Your task to perform on an android device: change alarm snooze length Image 0: 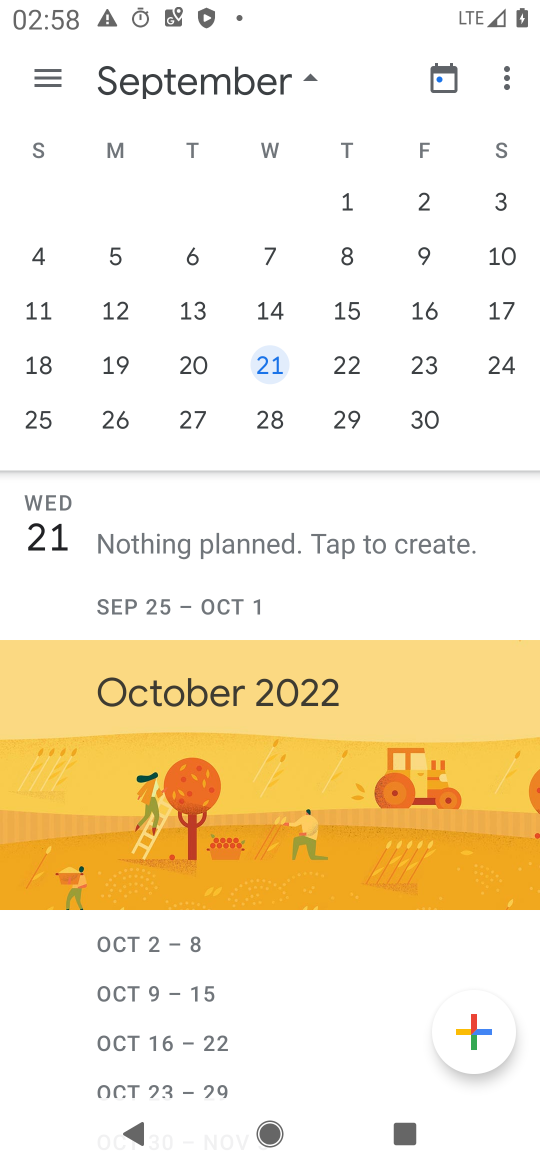
Step 0: press home button
Your task to perform on an android device: change alarm snooze length Image 1: 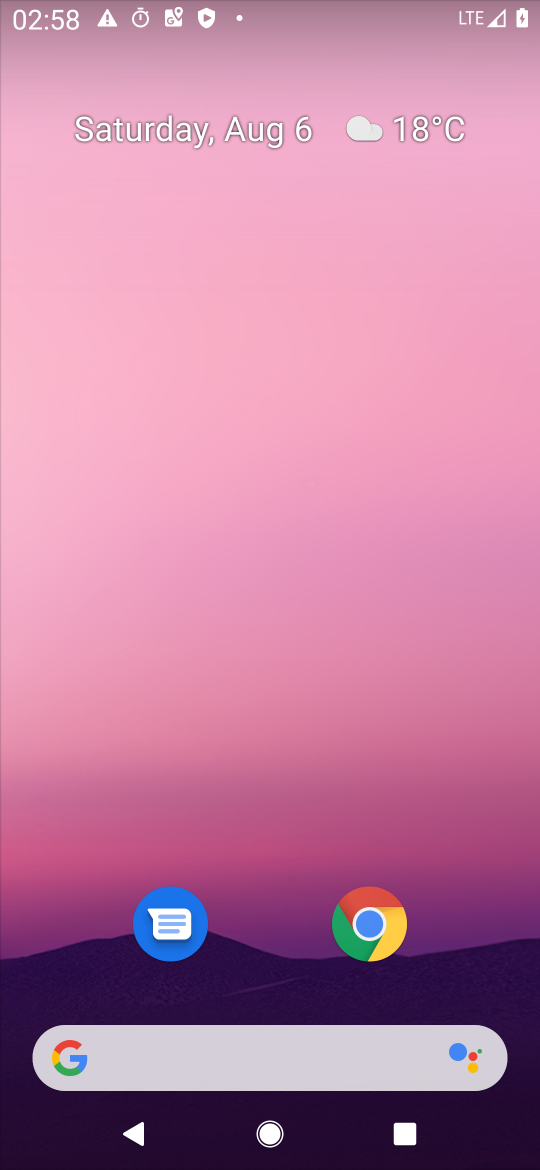
Step 1: drag from (285, 1062) to (375, 30)
Your task to perform on an android device: change alarm snooze length Image 2: 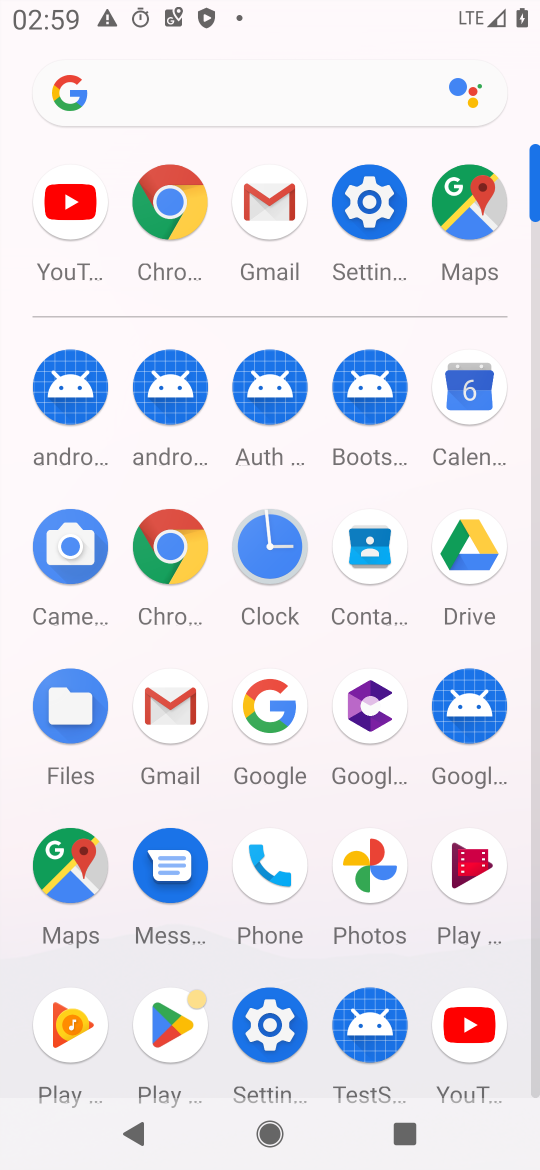
Step 2: click (262, 544)
Your task to perform on an android device: change alarm snooze length Image 3: 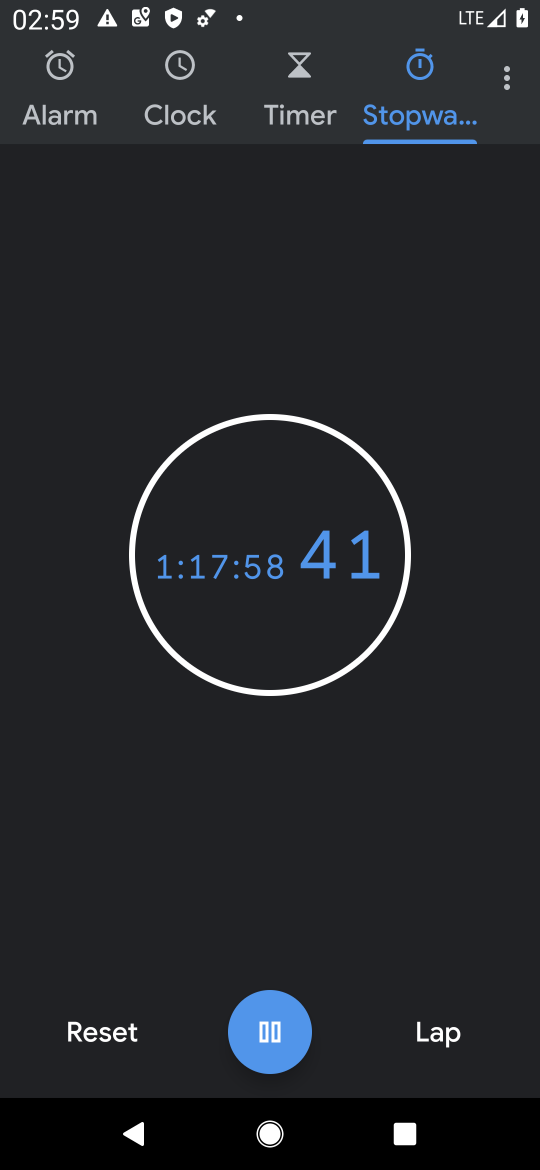
Step 3: click (503, 68)
Your task to perform on an android device: change alarm snooze length Image 4: 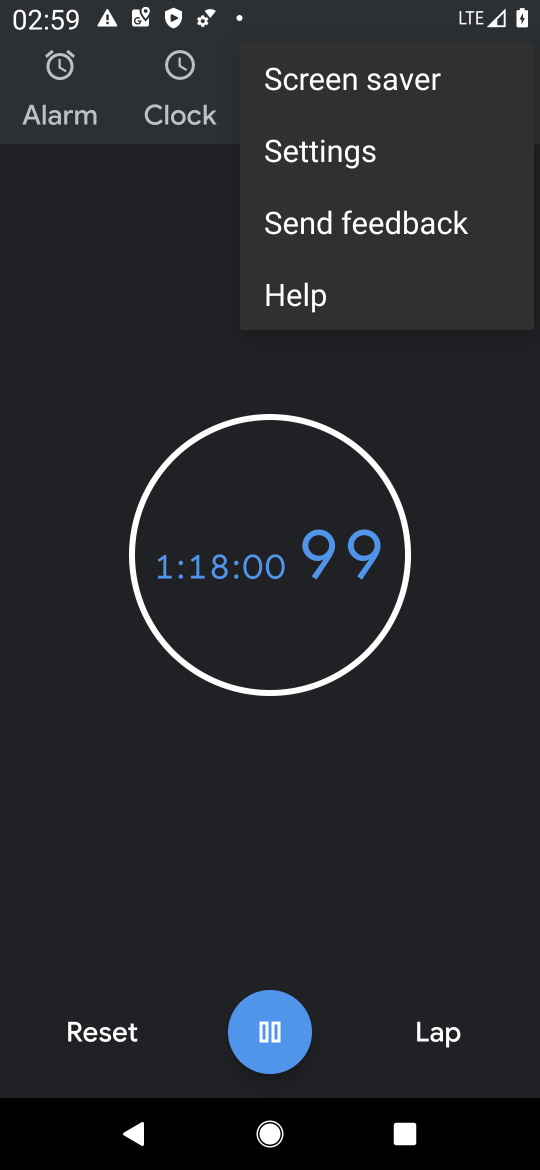
Step 4: click (357, 170)
Your task to perform on an android device: change alarm snooze length Image 5: 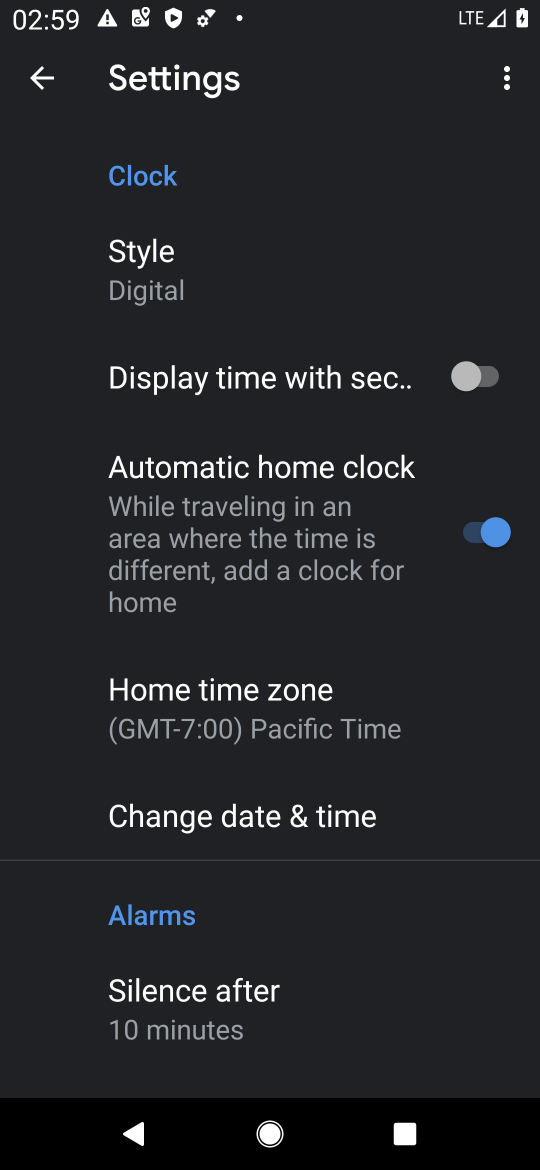
Step 5: drag from (398, 973) to (398, 264)
Your task to perform on an android device: change alarm snooze length Image 6: 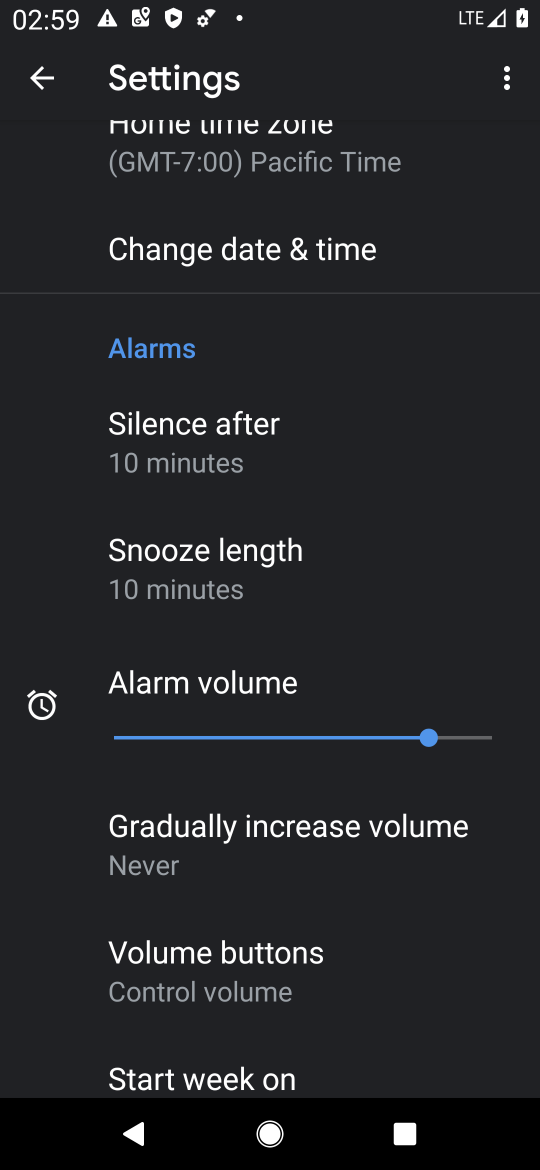
Step 6: drag from (457, 985) to (467, 697)
Your task to perform on an android device: change alarm snooze length Image 7: 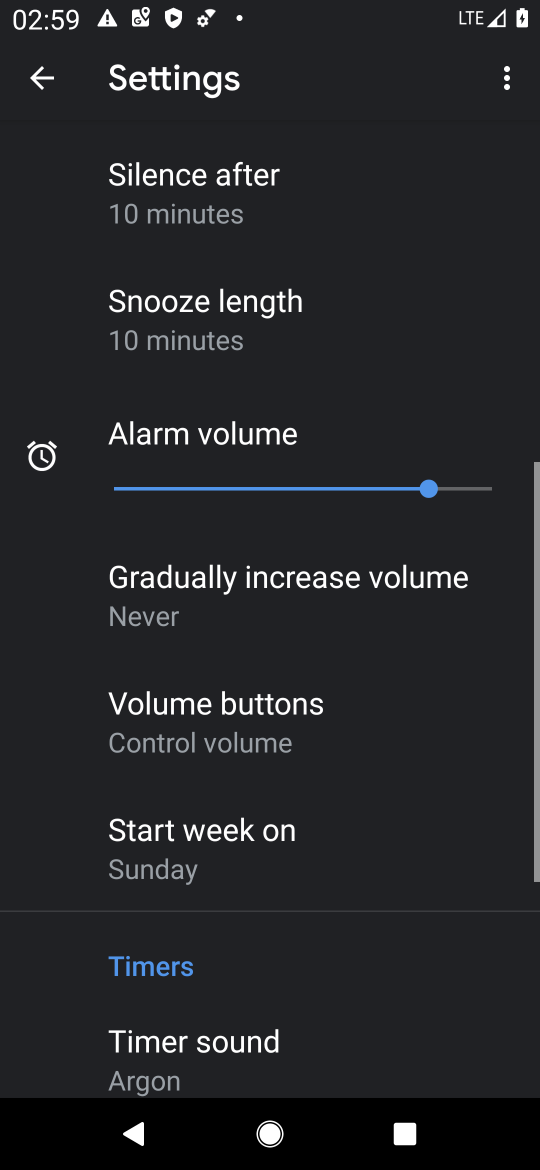
Step 7: click (467, 696)
Your task to perform on an android device: change alarm snooze length Image 8: 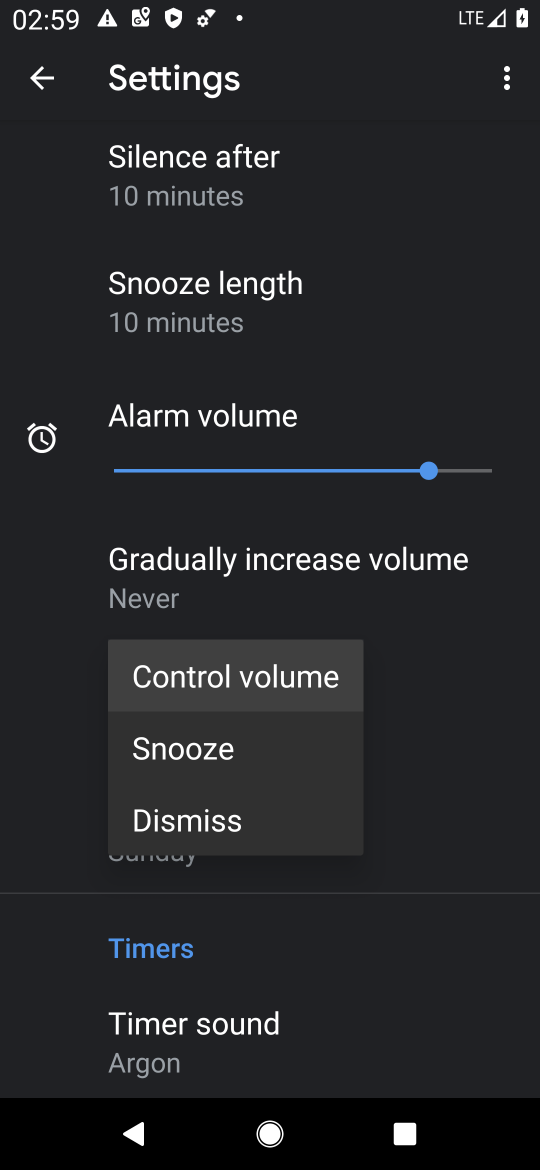
Step 8: click (244, 309)
Your task to perform on an android device: change alarm snooze length Image 9: 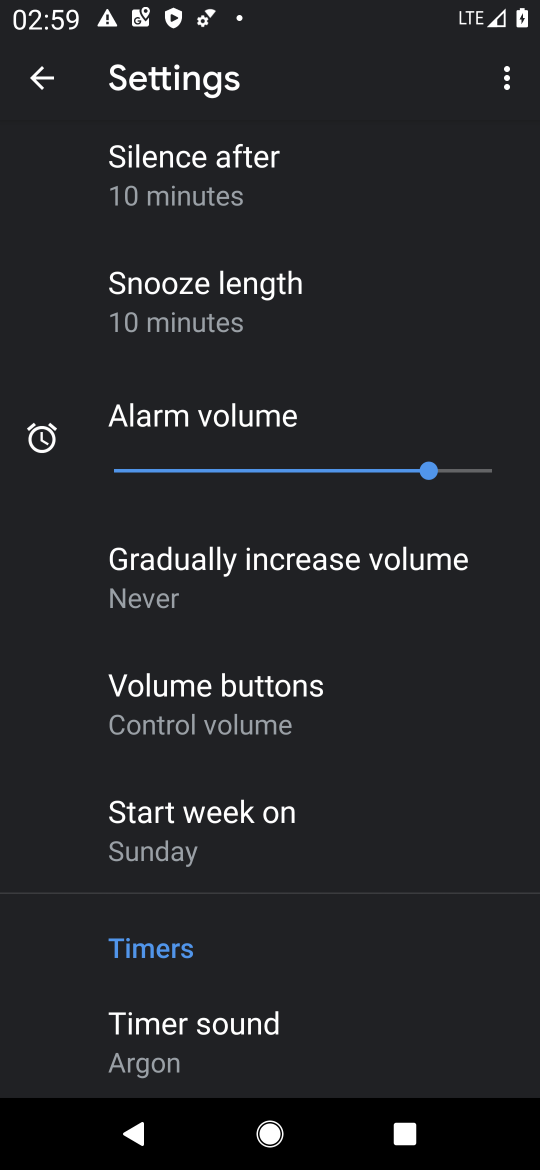
Step 9: click (244, 309)
Your task to perform on an android device: change alarm snooze length Image 10: 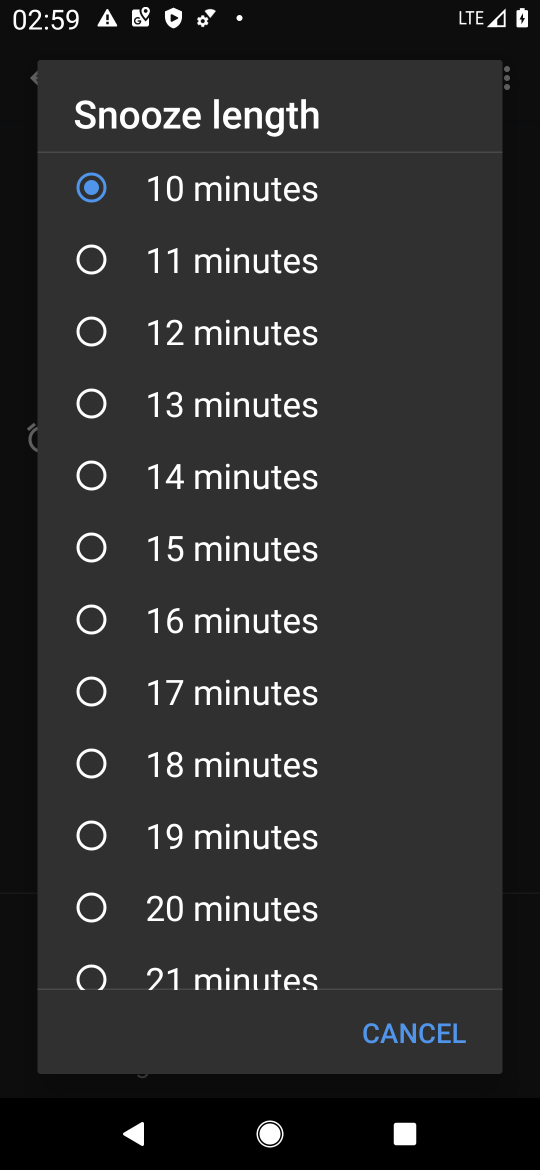
Step 10: click (86, 328)
Your task to perform on an android device: change alarm snooze length Image 11: 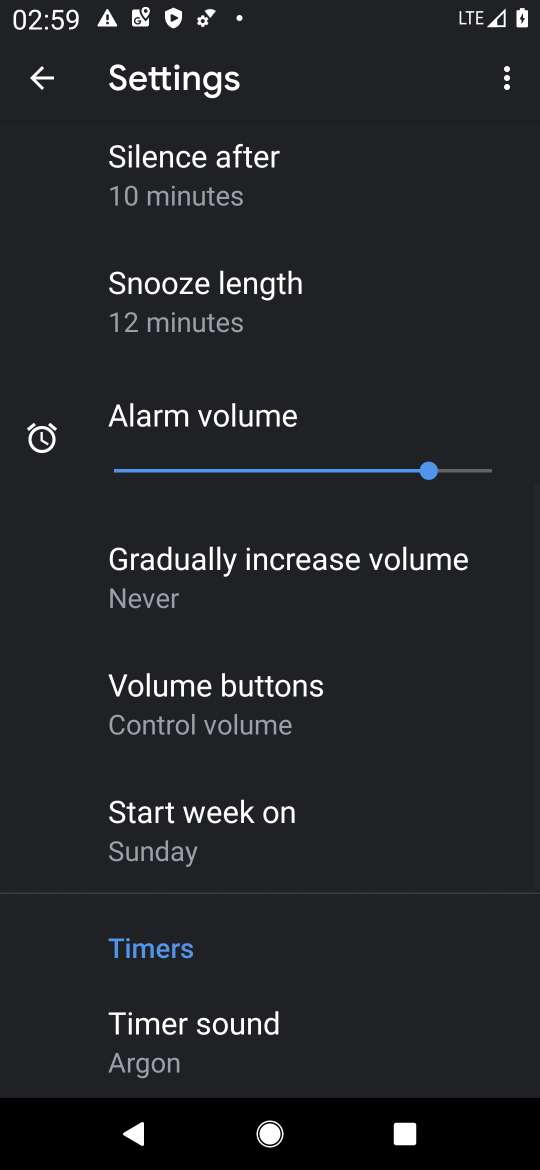
Step 11: task complete